Your task to perform on an android device: toggle pop-ups in chrome Image 0: 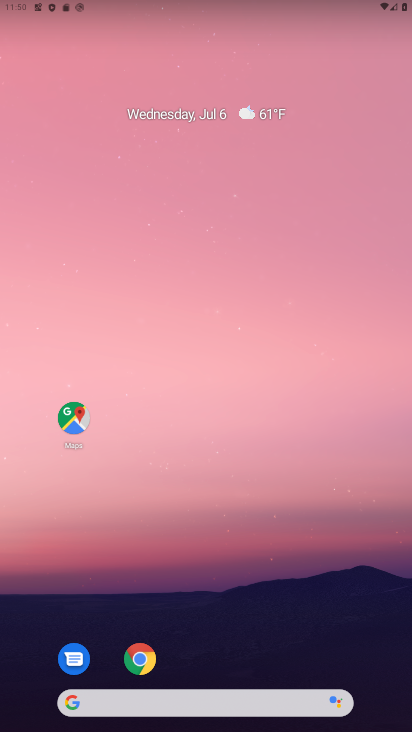
Step 0: click (150, 658)
Your task to perform on an android device: toggle pop-ups in chrome Image 1: 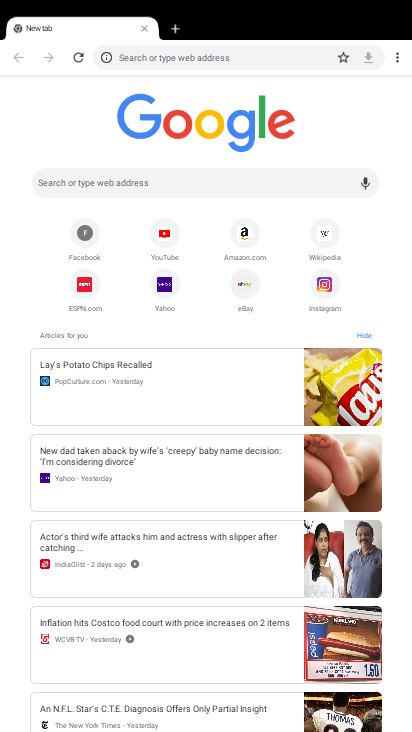
Step 1: click (395, 58)
Your task to perform on an android device: toggle pop-ups in chrome Image 2: 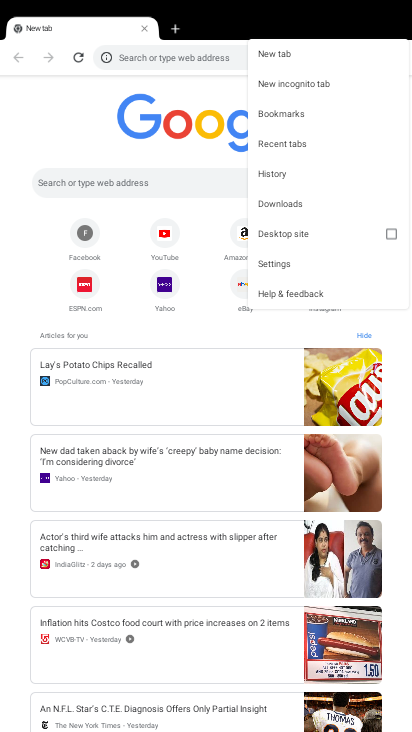
Step 2: click (278, 262)
Your task to perform on an android device: toggle pop-ups in chrome Image 3: 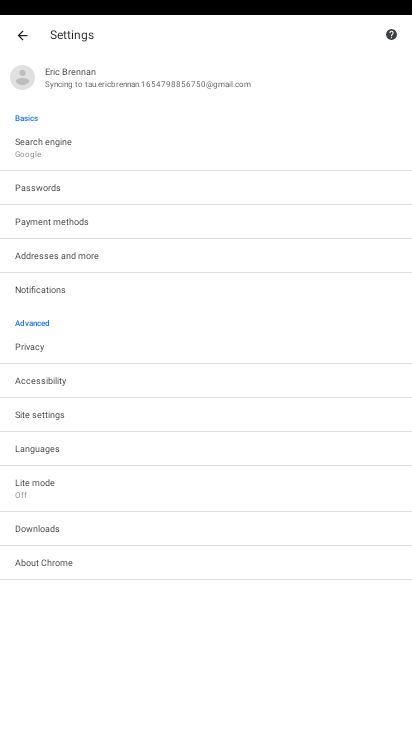
Step 3: click (55, 412)
Your task to perform on an android device: toggle pop-ups in chrome Image 4: 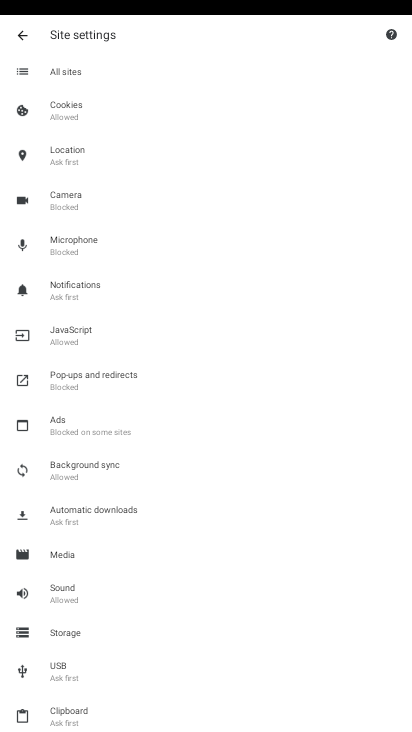
Step 4: click (117, 379)
Your task to perform on an android device: toggle pop-ups in chrome Image 5: 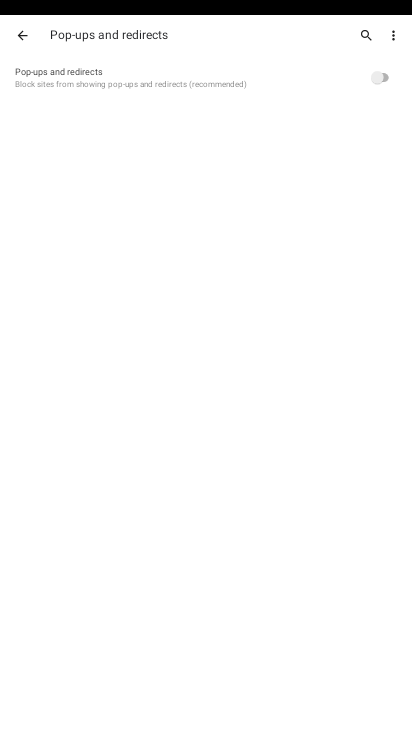
Step 5: click (376, 72)
Your task to perform on an android device: toggle pop-ups in chrome Image 6: 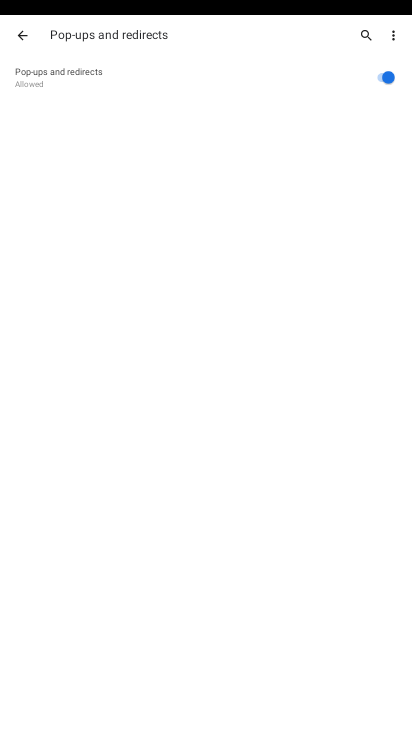
Step 6: task complete